Your task to perform on an android device: Search for Italian restaurants on Maps Image 0: 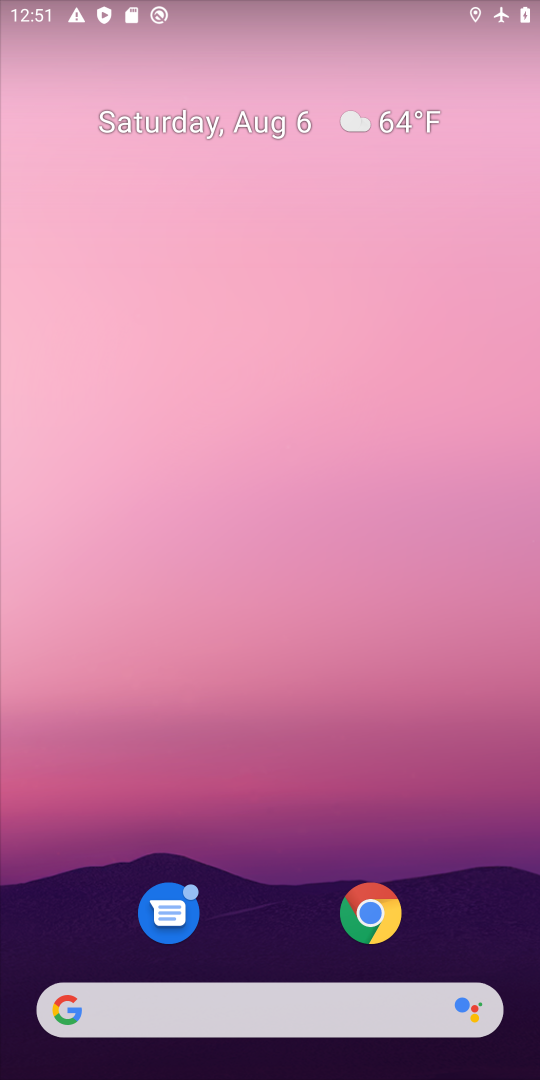
Step 0: press home button
Your task to perform on an android device: Search for Italian restaurants on Maps Image 1: 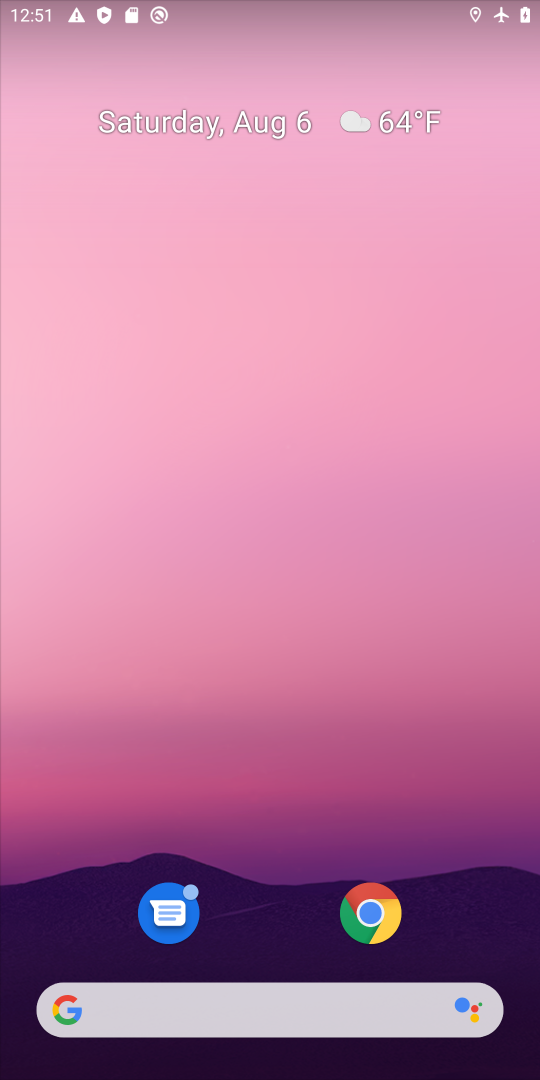
Step 1: drag from (443, 916) to (431, 254)
Your task to perform on an android device: Search for Italian restaurants on Maps Image 2: 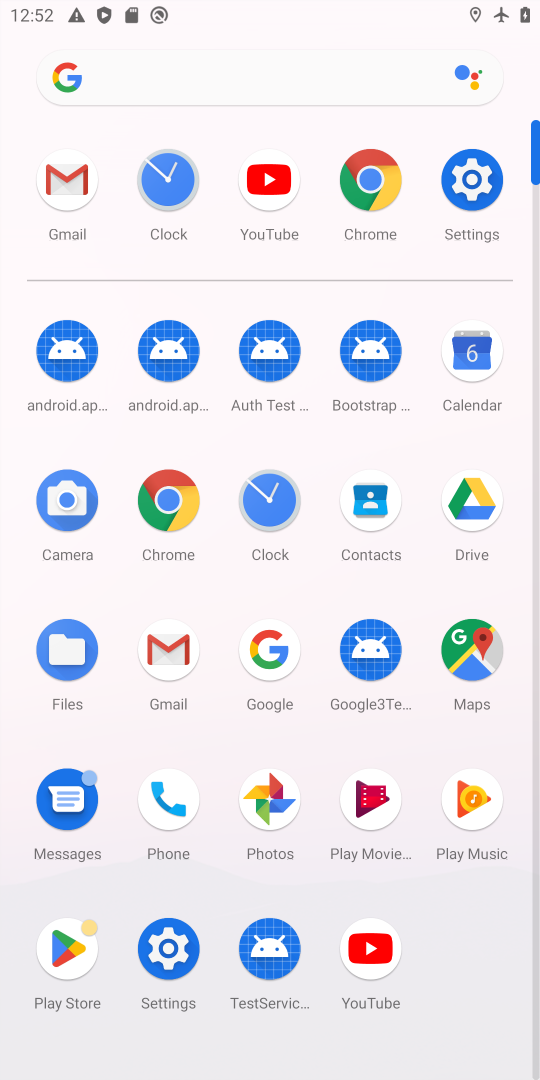
Step 2: click (466, 647)
Your task to perform on an android device: Search for Italian restaurants on Maps Image 3: 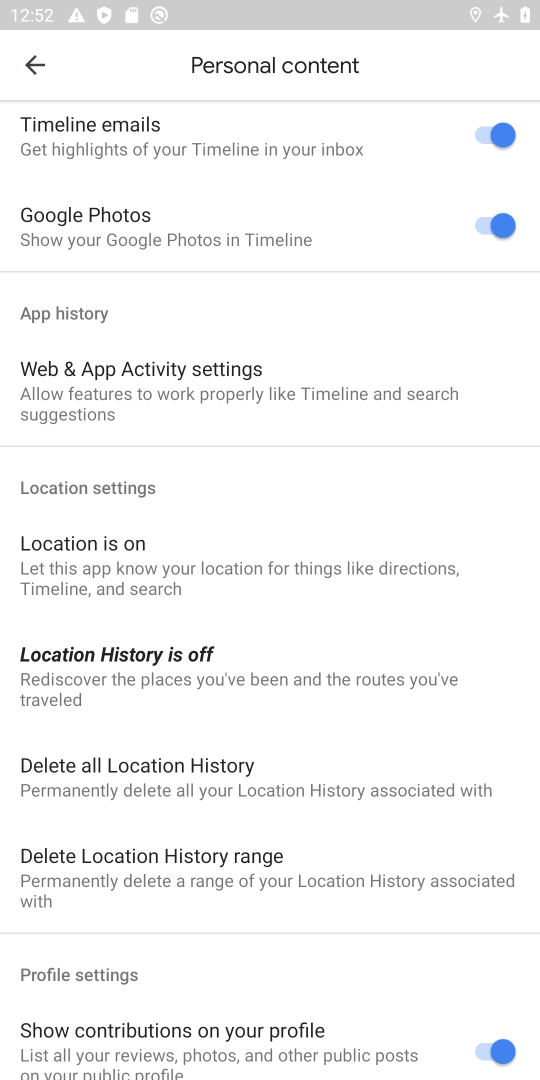
Step 3: press back button
Your task to perform on an android device: Search for Italian restaurants on Maps Image 4: 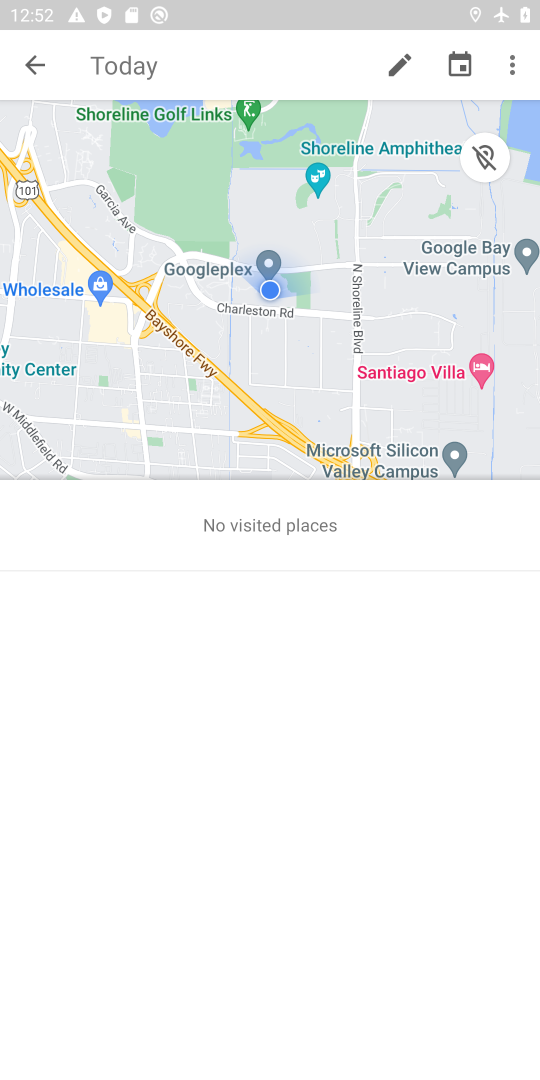
Step 4: press back button
Your task to perform on an android device: Search for Italian restaurants on Maps Image 5: 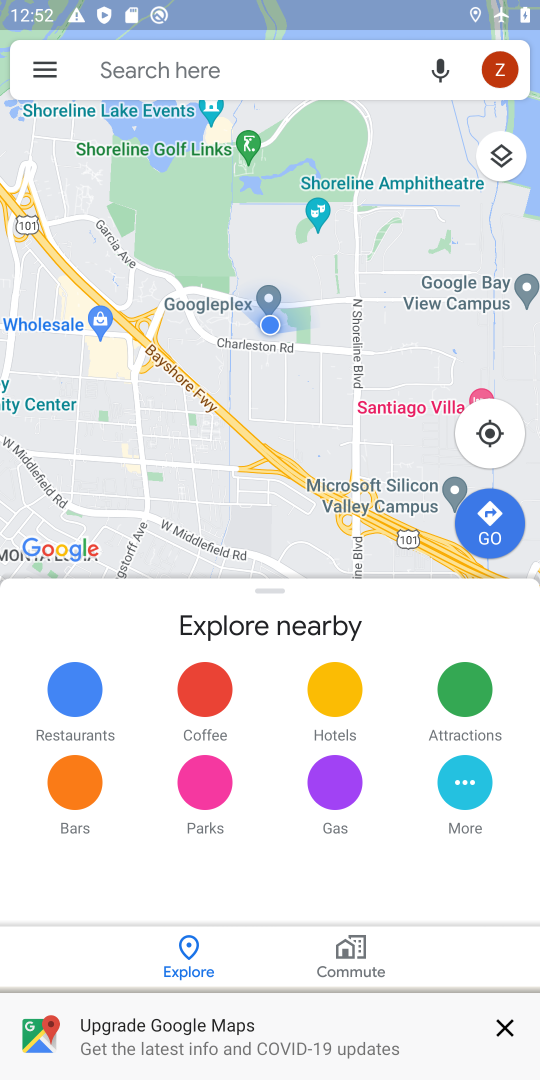
Step 5: click (259, 71)
Your task to perform on an android device: Search for Italian restaurants on Maps Image 6: 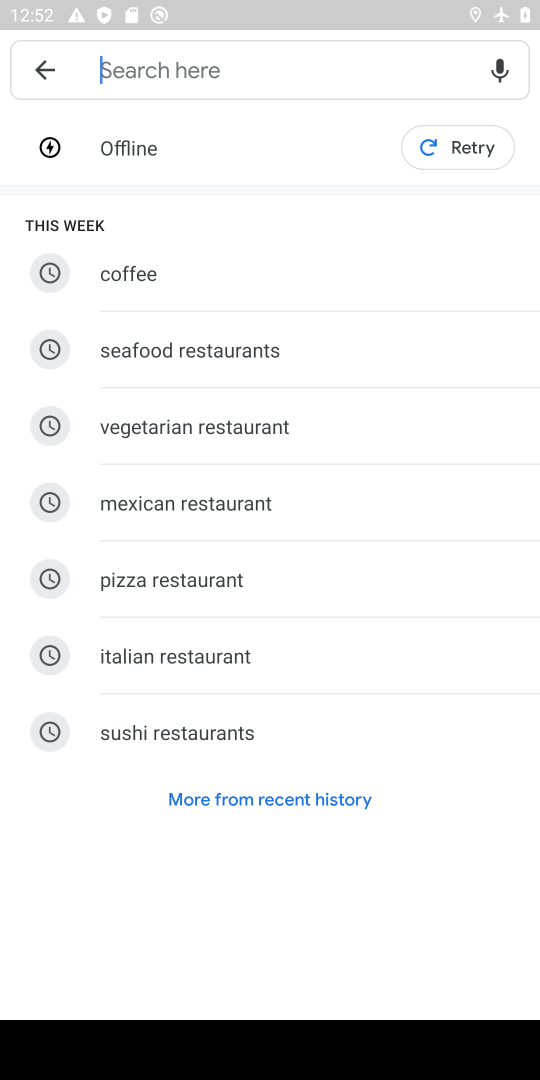
Step 6: type "italian restaurants"
Your task to perform on an android device: Search for Italian restaurants on Maps Image 7: 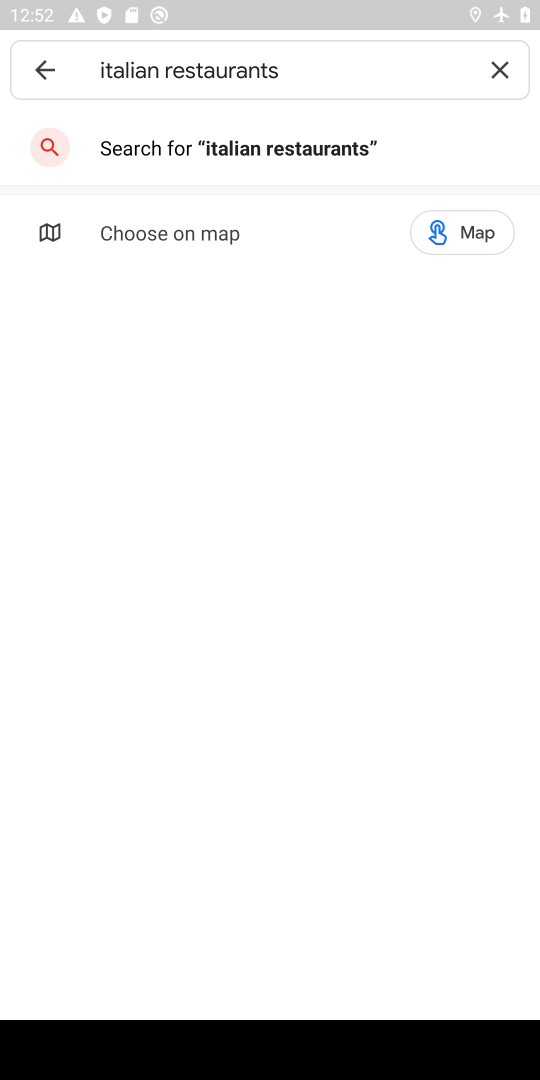
Step 7: task complete